Your task to perform on an android device: turn off smart reply in the gmail app Image 0: 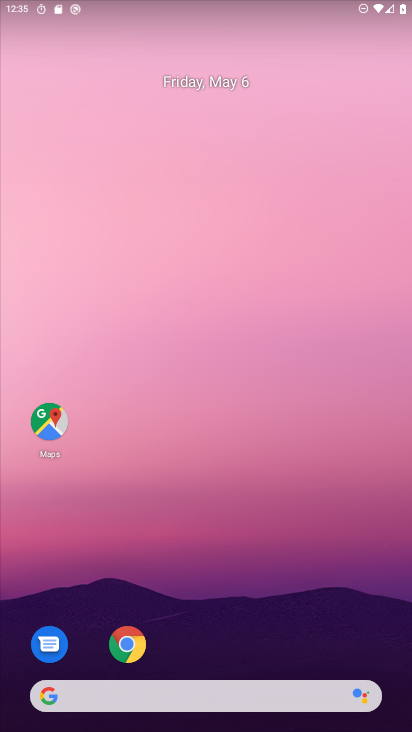
Step 0: drag from (375, 612) to (339, 149)
Your task to perform on an android device: turn off smart reply in the gmail app Image 1: 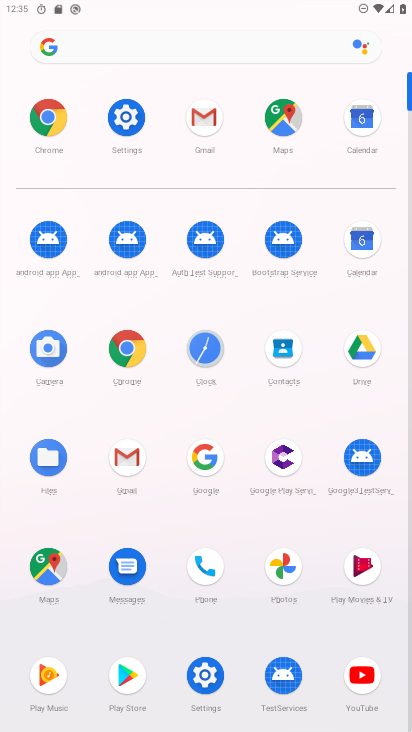
Step 1: click (125, 450)
Your task to perform on an android device: turn off smart reply in the gmail app Image 2: 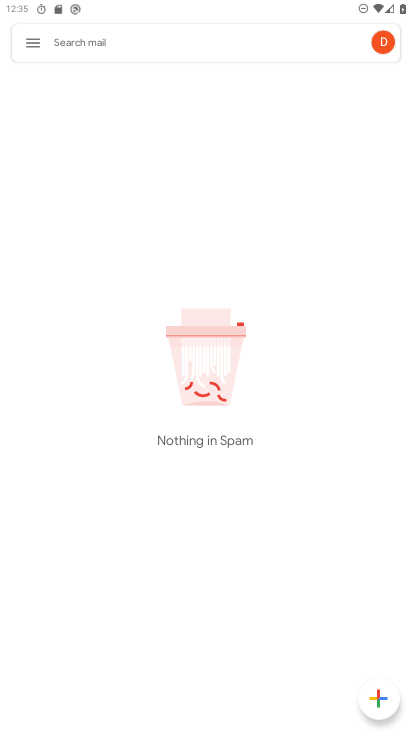
Step 2: click (31, 43)
Your task to perform on an android device: turn off smart reply in the gmail app Image 3: 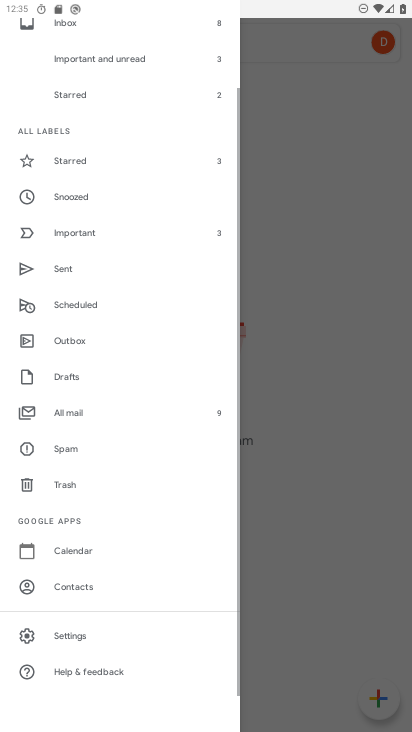
Step 3: click (61, 639)
Your task to perform on an android device: turn off smart reply in the gmail app Image 4: 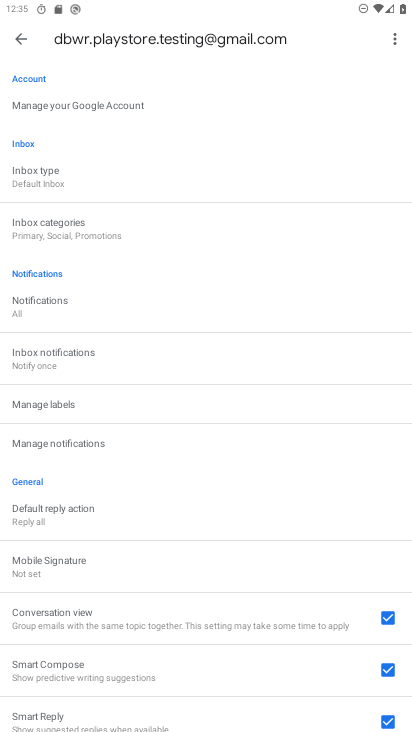
Step 4: drag from (186, 673) to (194, 436)
Your task to perform on an android device: turn off smart reply in the gmail app Image 5: 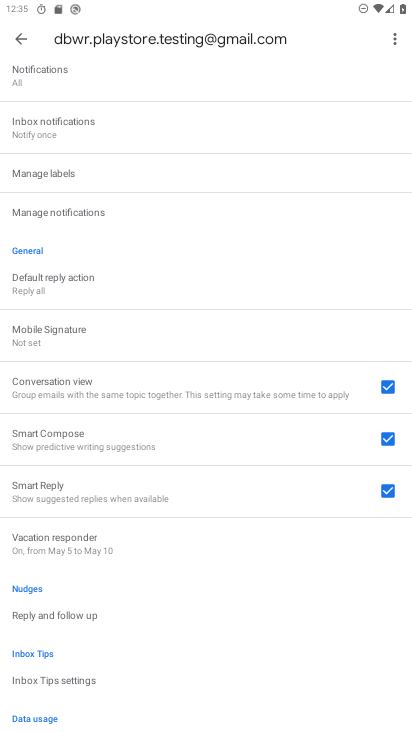
Step 5: click (390, 490)
Your task to perform on an android device: turn off smart reply in the gmail app Image 6: 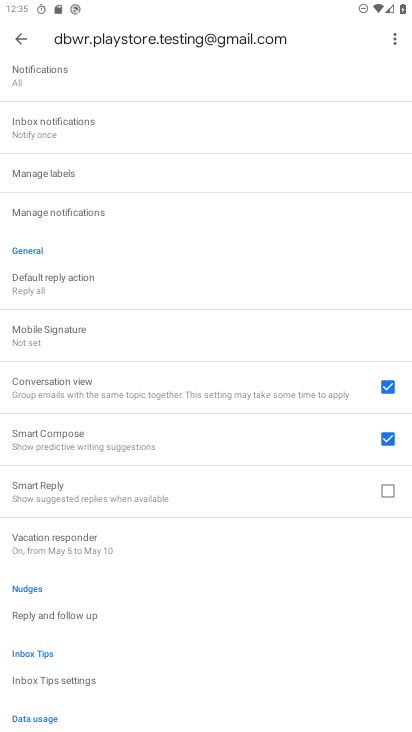
Step 6: task complete